Your task to perform on an android device: Add "jbl charge 4" to the cart on target.com Image 0: 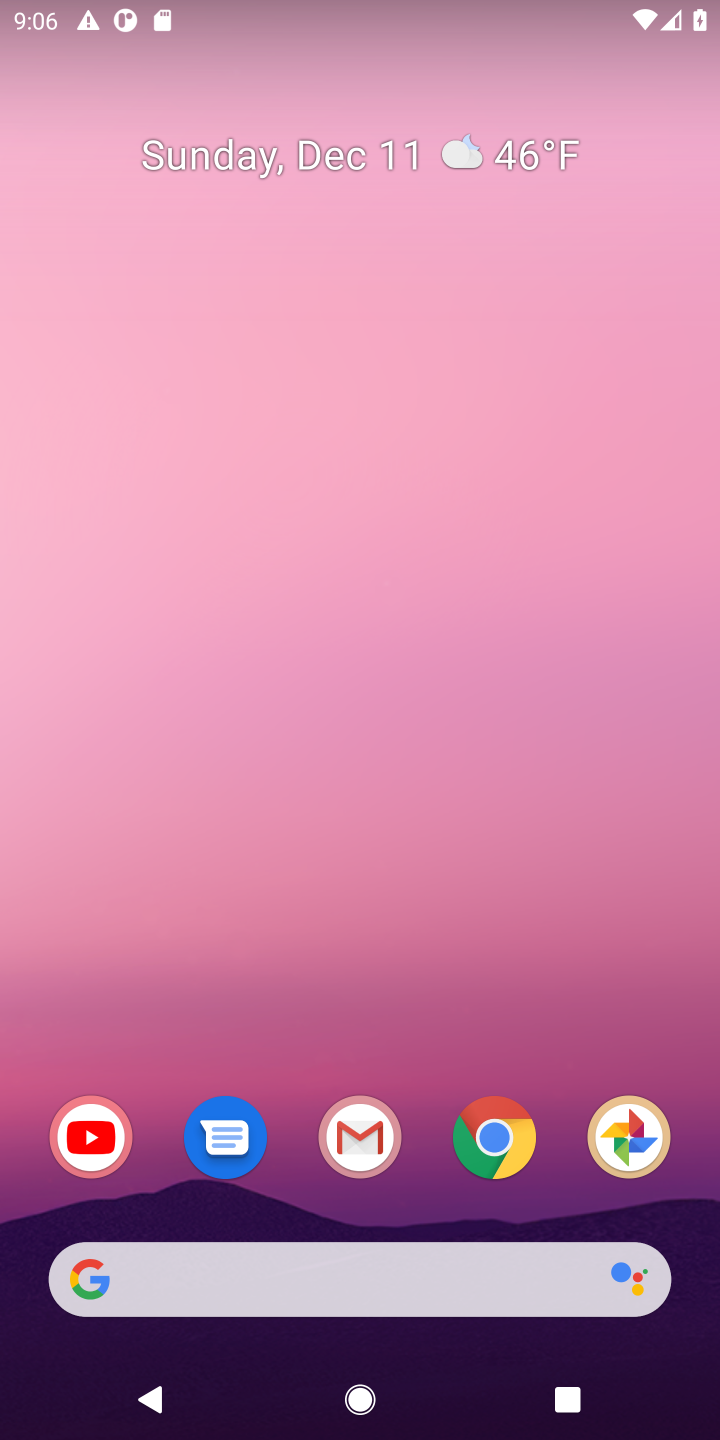
Step 0: click (486, 1136)
Your task to perform on an android device: Add "jbl charge 4" to the cart on target.com Image 1: 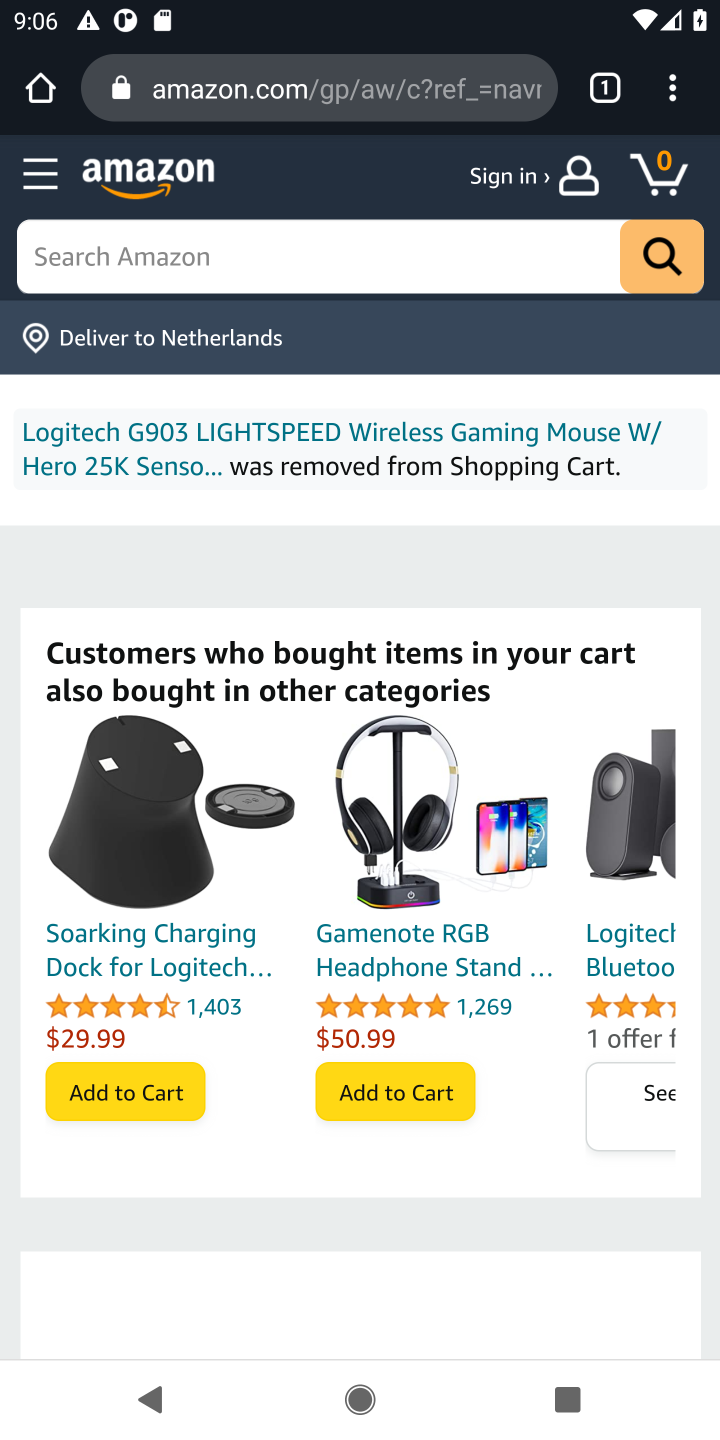
Step 1: click (293, 88)
Your task to perform on an android device: Add "jbl charge 4" to the cart on target.com Image 2: 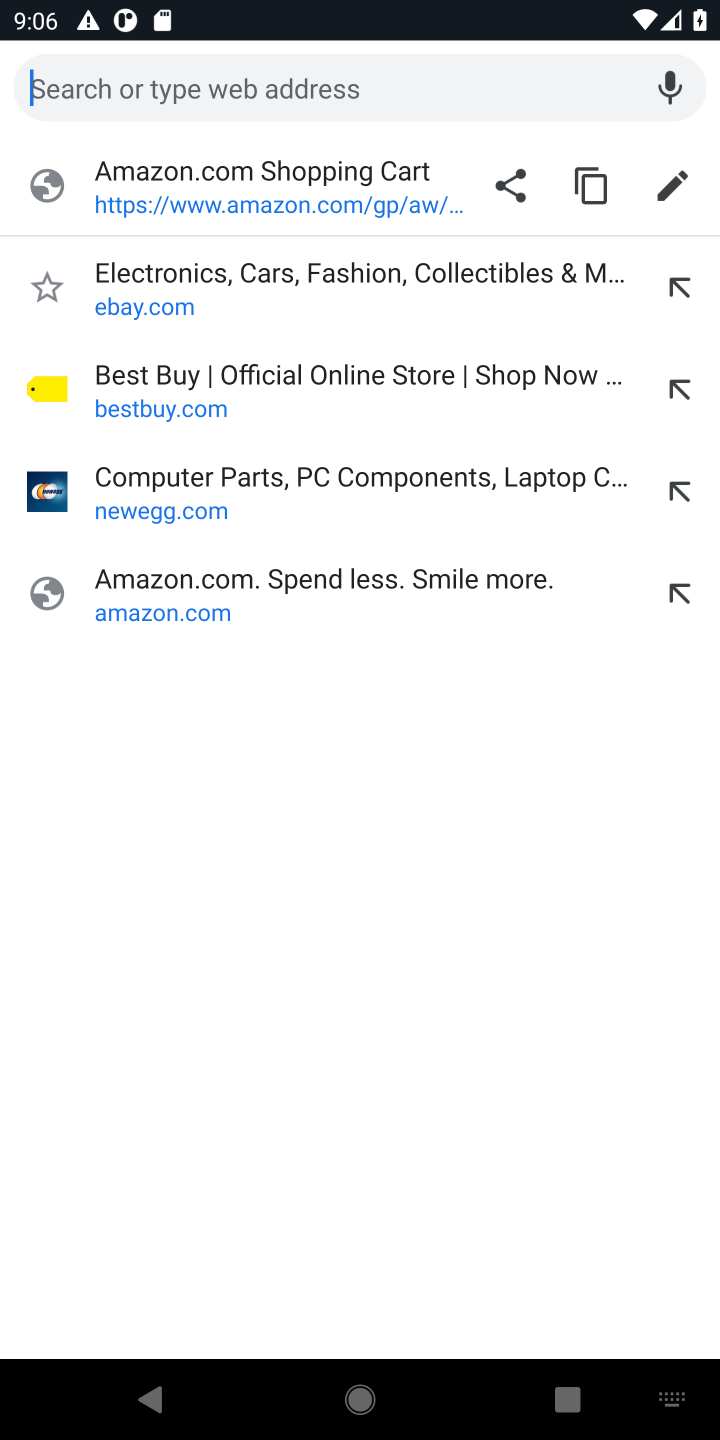
Step 2: type "target"
Your task to perform on an android device: Add "jbl charge 4" to the cart on target.com Image 3: 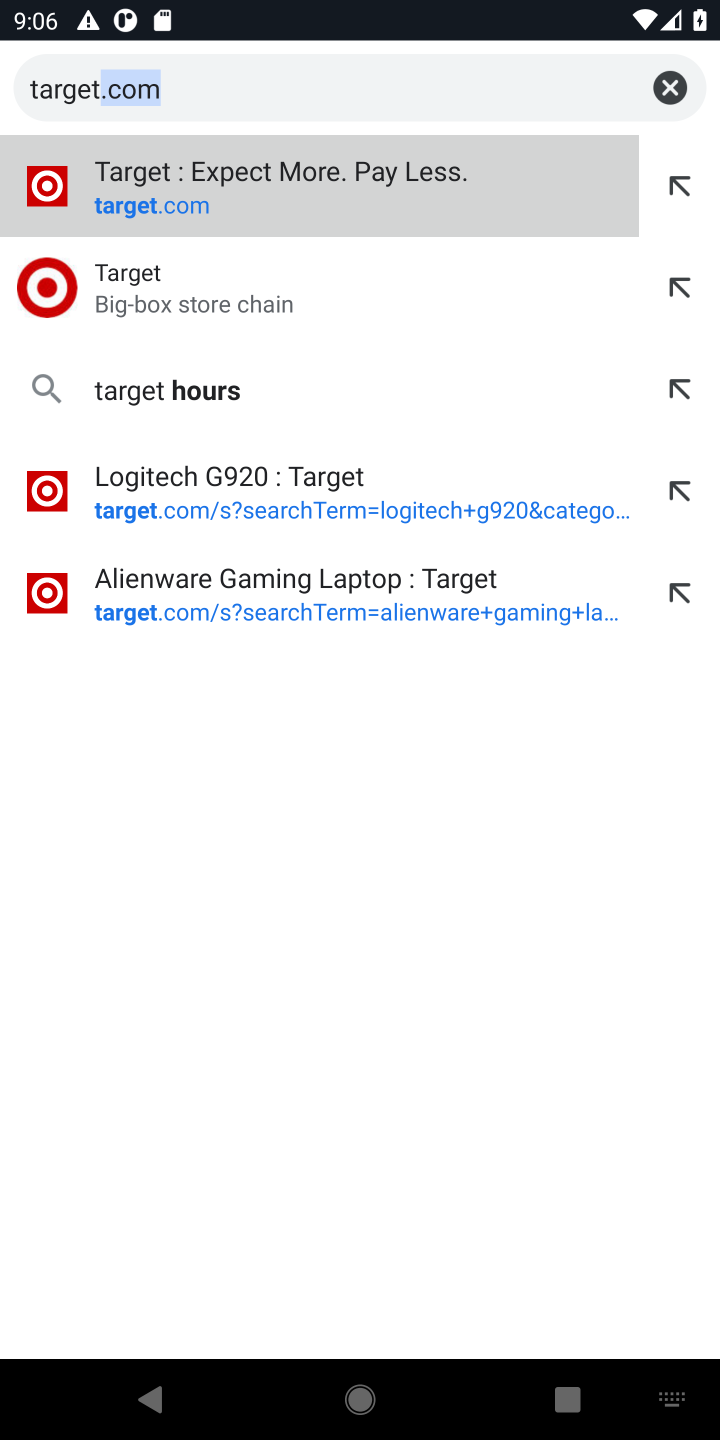
Step 3: click (327, 220)
Your task to perform on an android device: Add "jbl charge 4" to the cart on target.com Image 4: 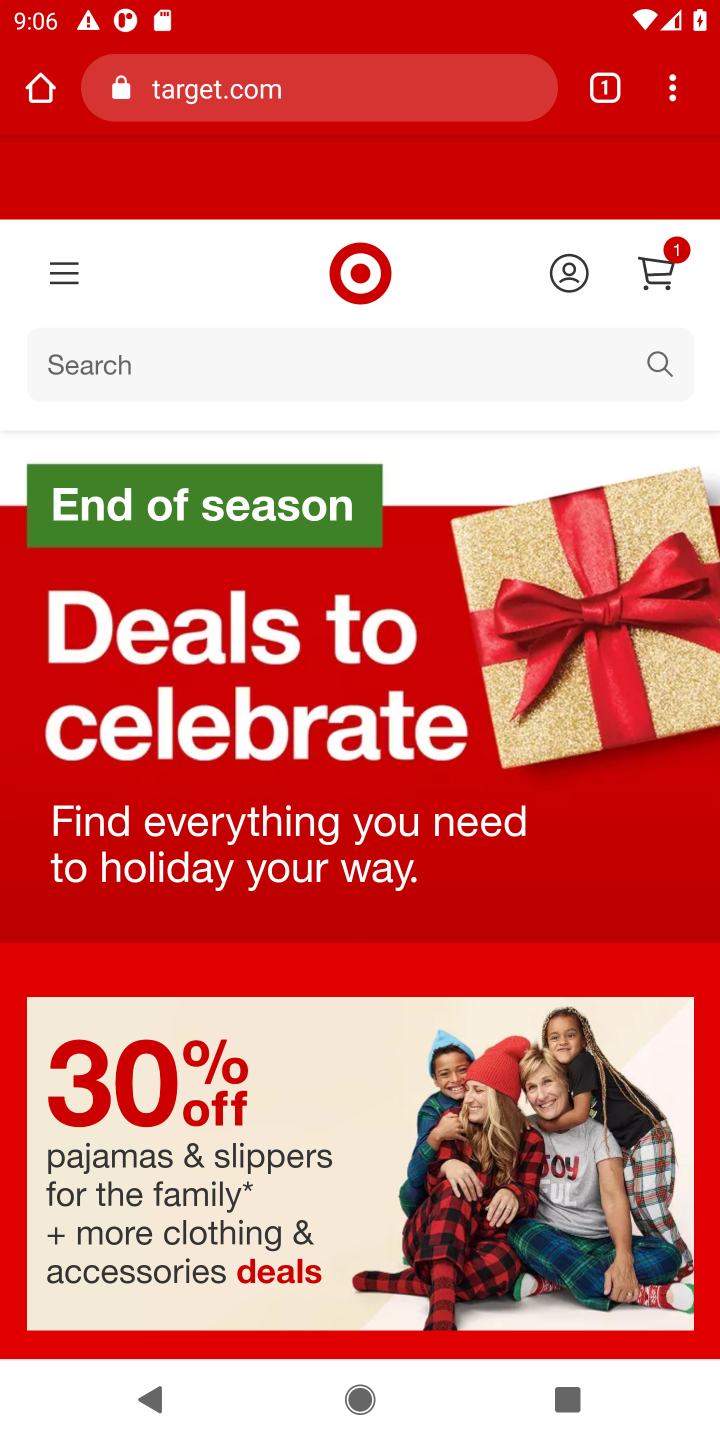
Step 4: click (384, 361)
Your task to perform on an android device: Add "jbl charge 4" to the cart on target.com Image 5: 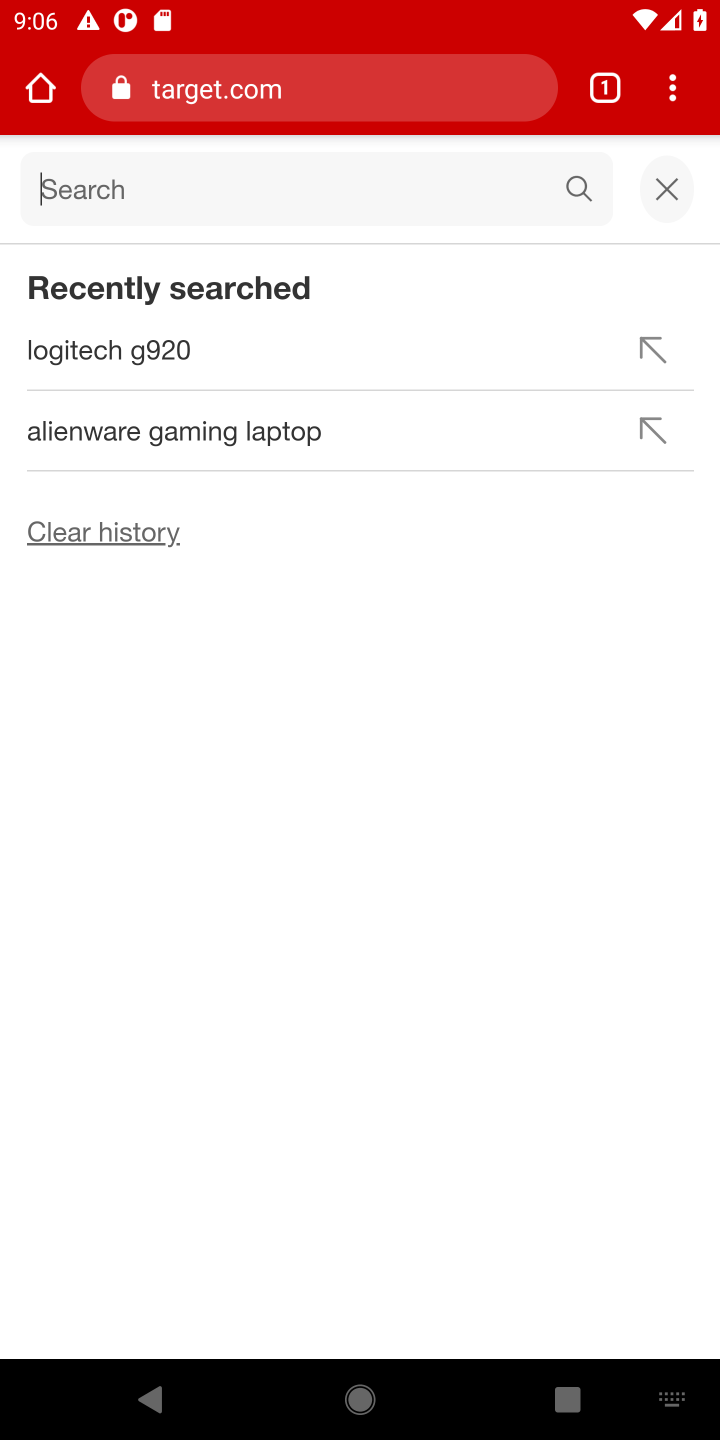
Step 5: type "jbl charge 4"
Your task to perform on an android device: Add "jbl charge 4" to the cart on target.com Image 6: 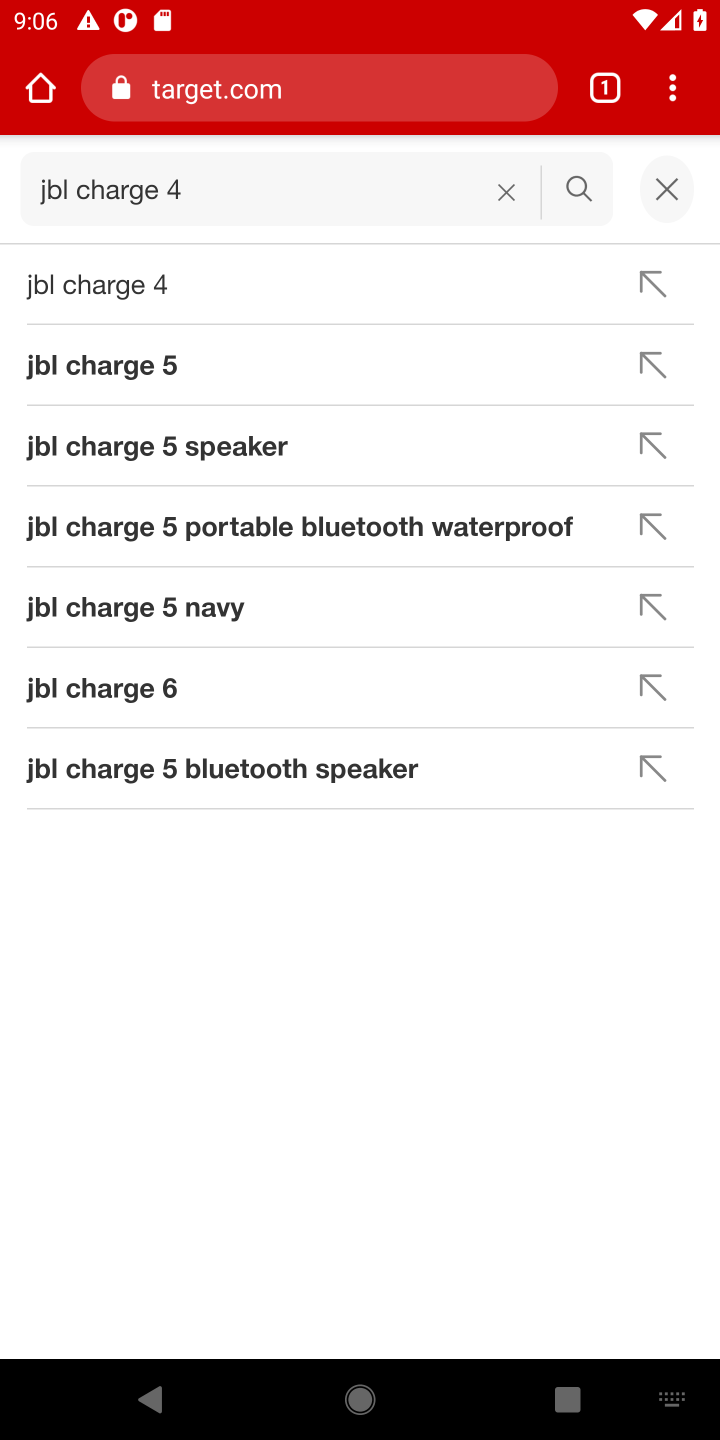
Step 6: click (114, 283)
Your task to perform on an android device: Add "jbl charge 4" to the cart on target.com Image 7: 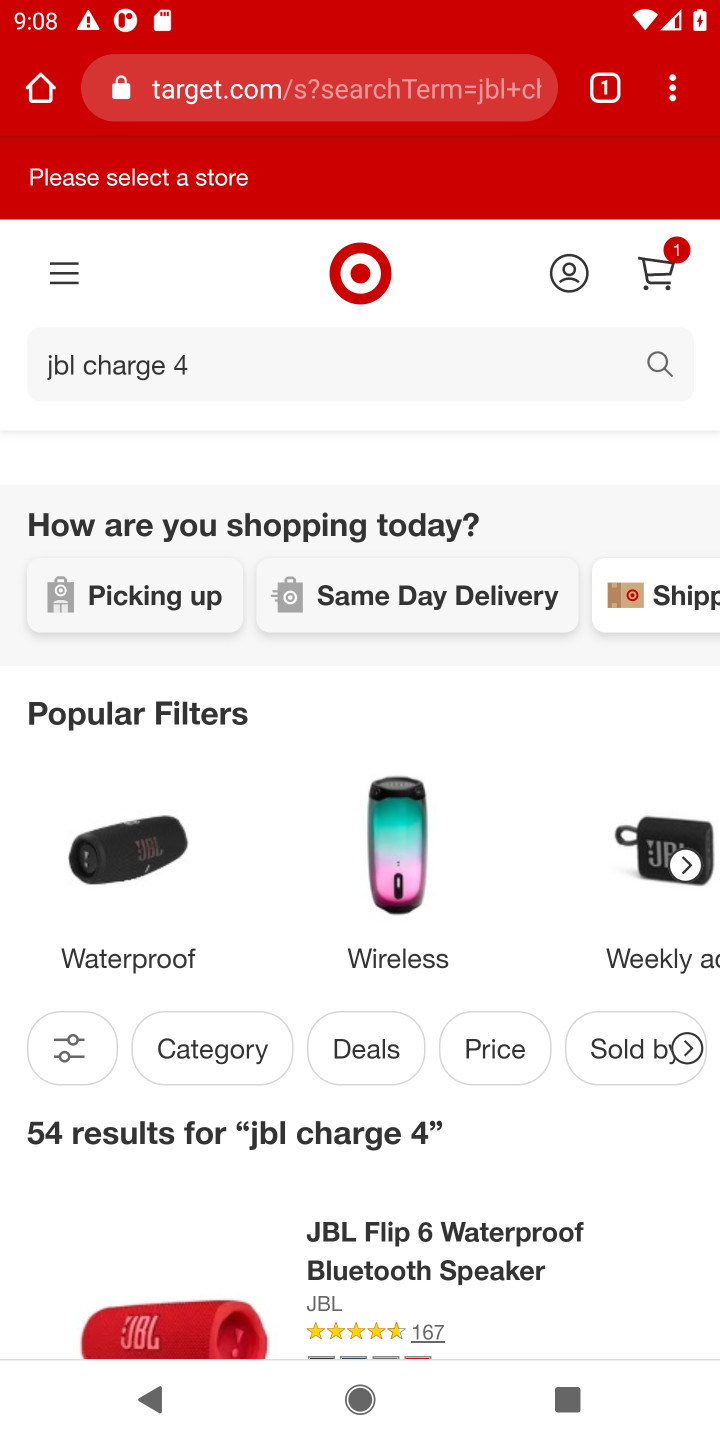
Step 7: click (655, 361)
Your task to perform on an android device: Add "jbl charge 4" to the cart on target.com Image 8: 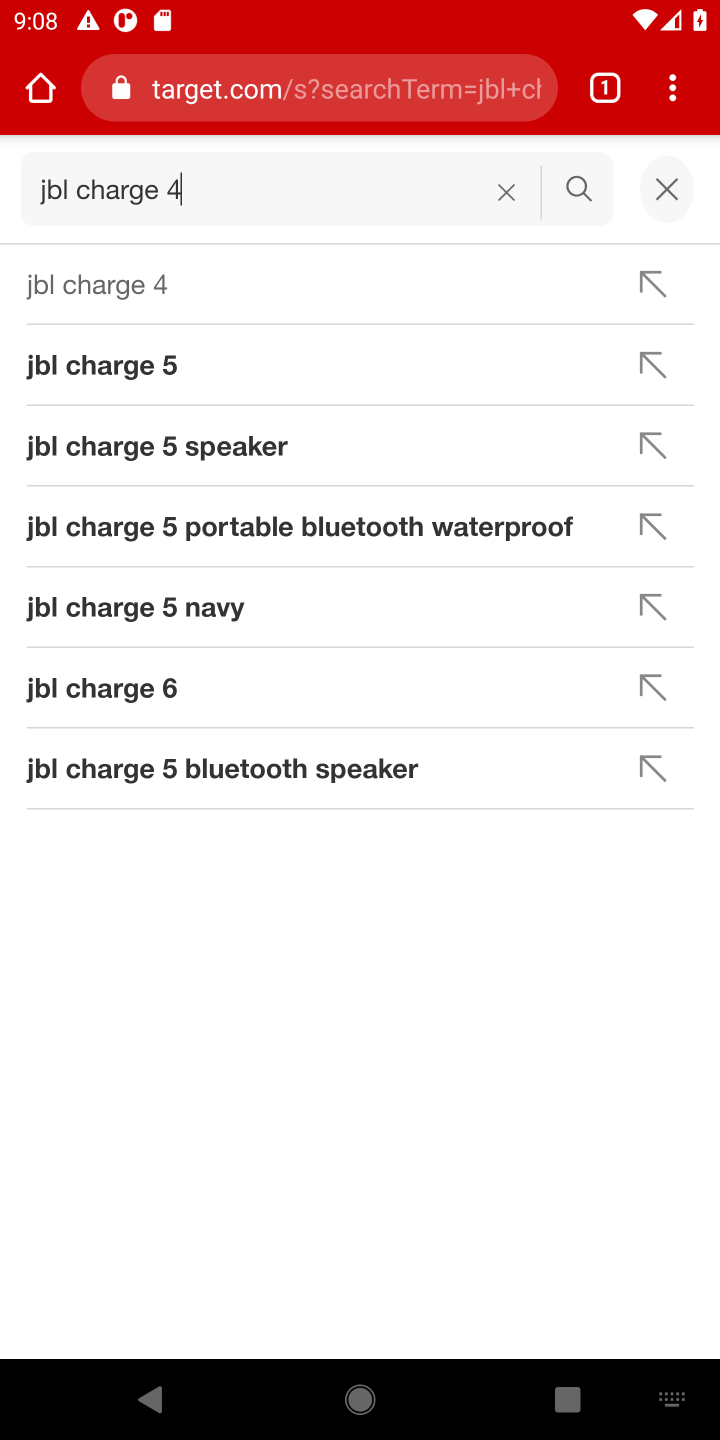
Step 8: click (116, 290)
Your task to perform on an android device: Add "jbl charge 4" to the cart on target.com Image 9: 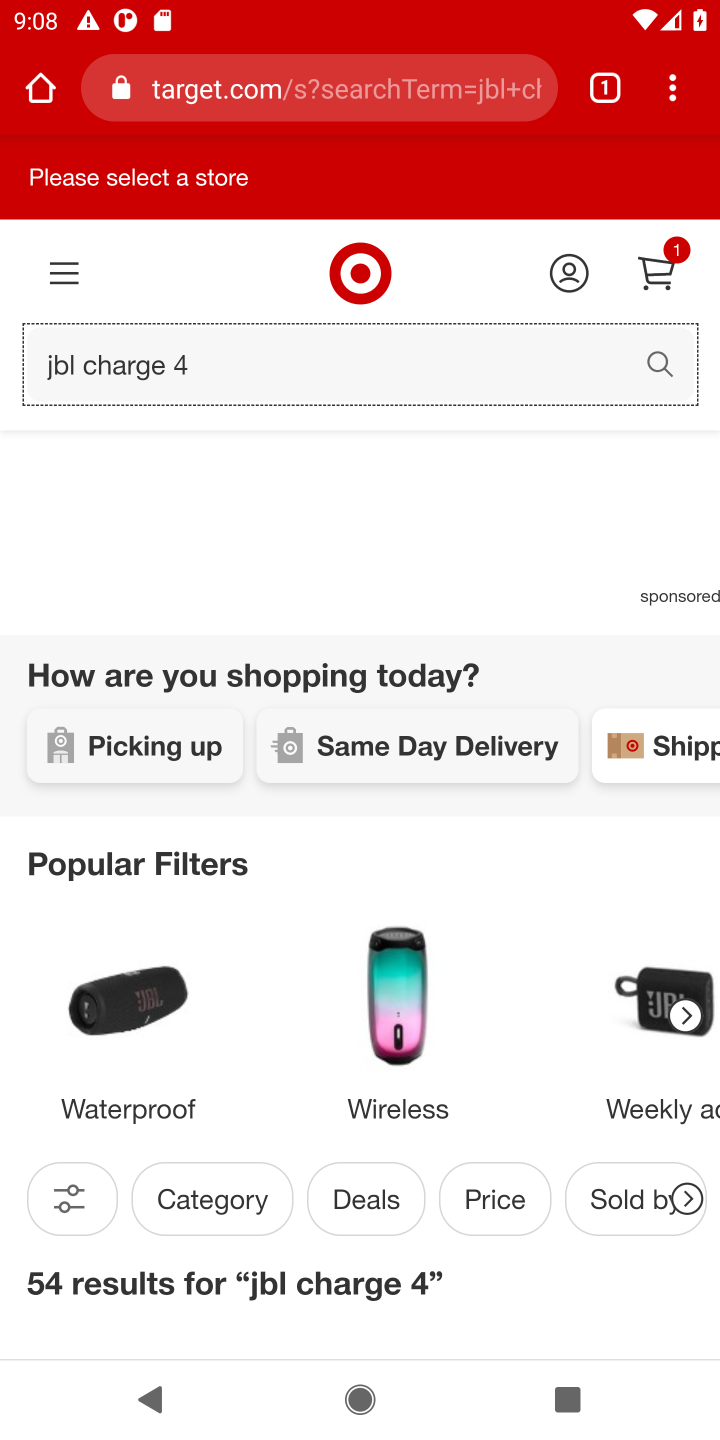
Step 9: click (654, 360)
Your task to perform on an android device: Add "jbl charge 4" to the cart on target.com Image 10: 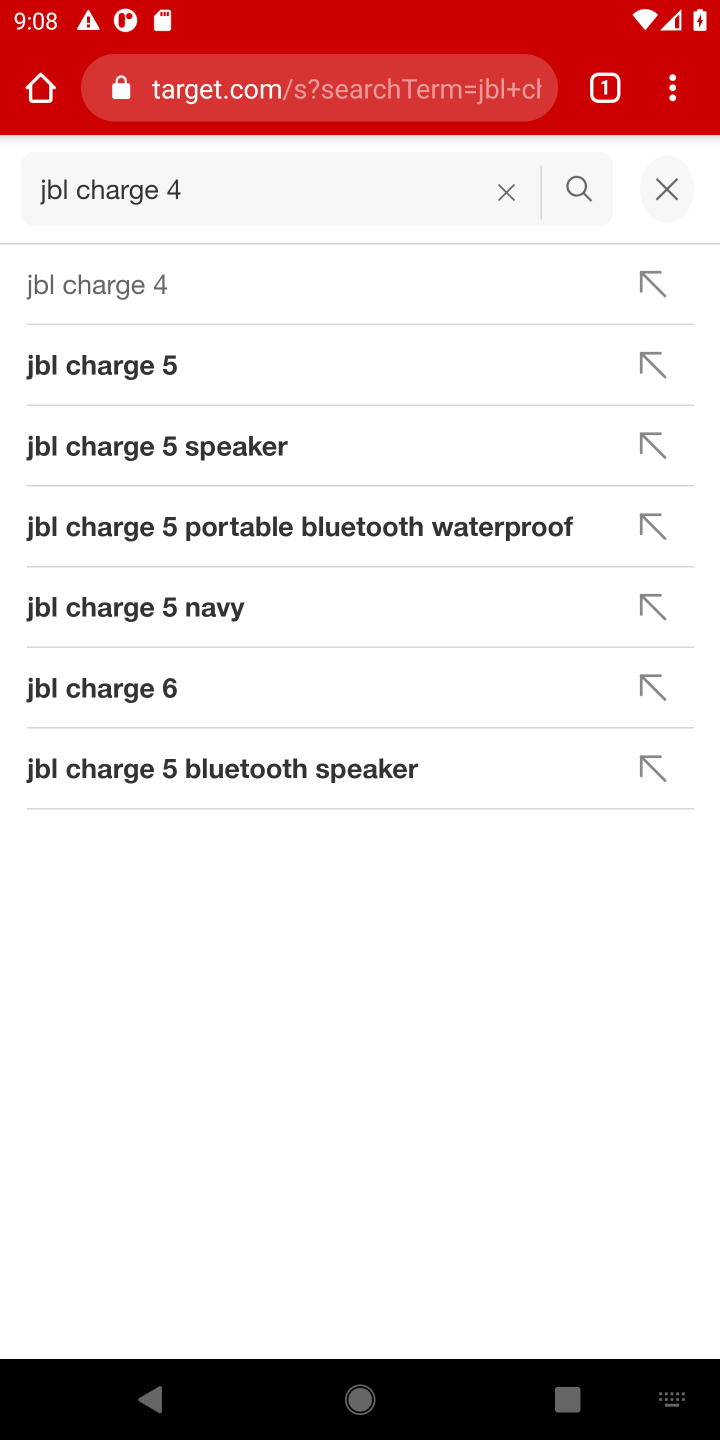
Step 10: click (142, 294)
Your task to perform on an android device: Add "jbl charge 4" to the cart on target.com Image 11: 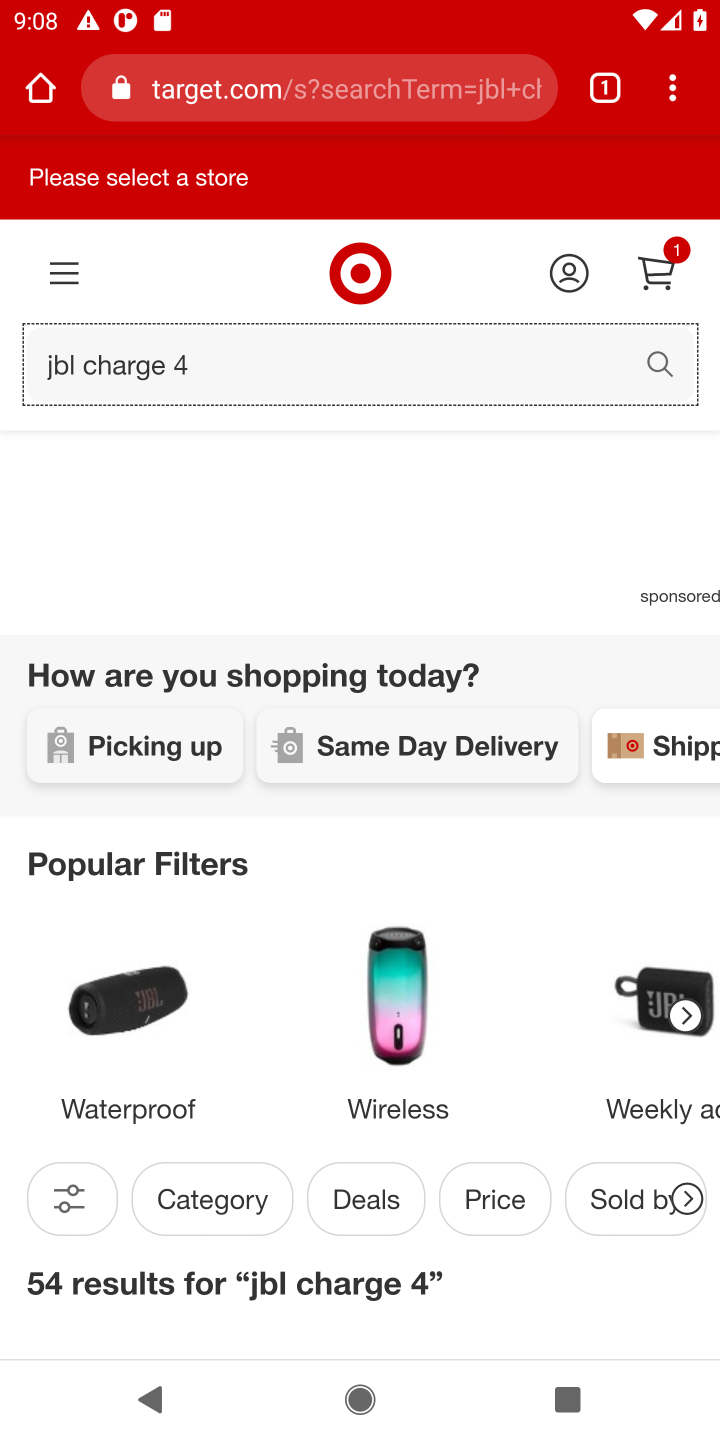
Step 11: drag from (502, 1288) to (475, 236)
Your task to perform on an android device: Add "jbl charge 4" to the cart on target.com Image 12: 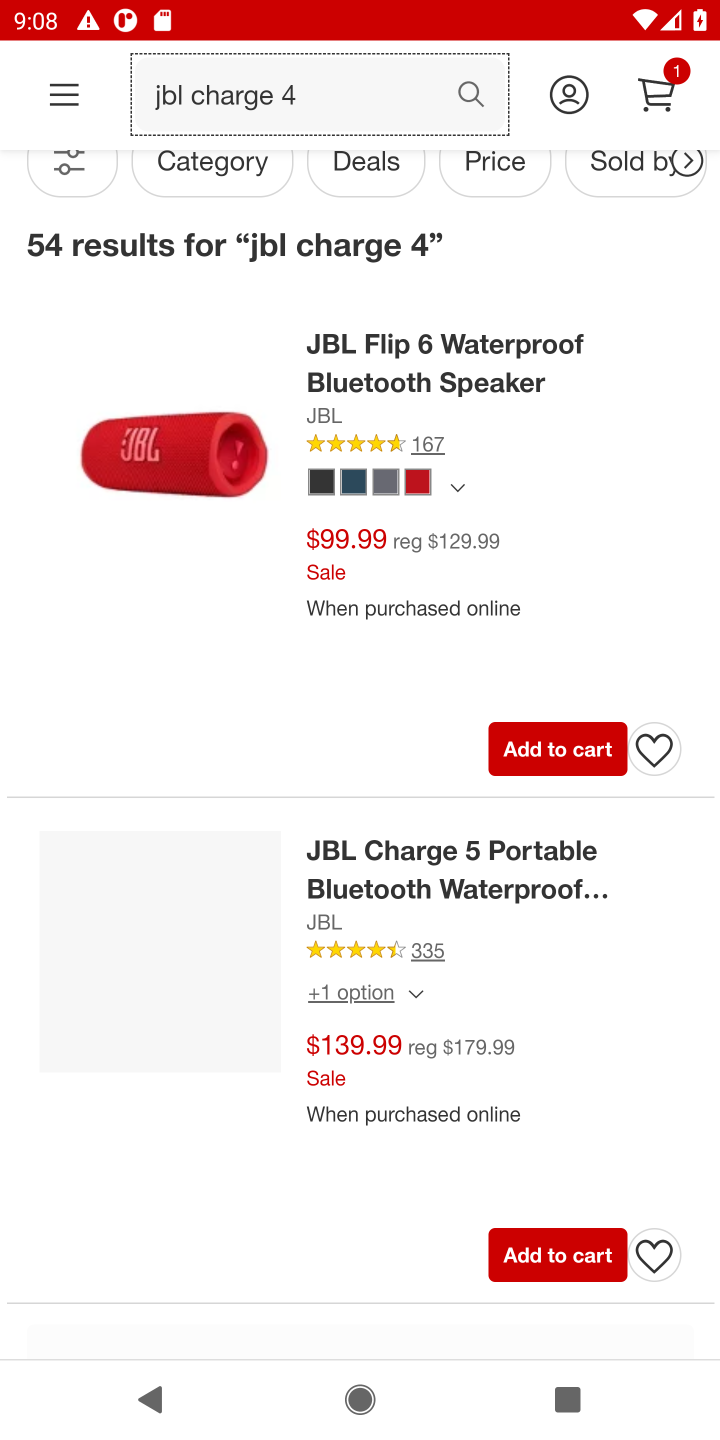
Step 12: click (547, 746)
Your task to perform on an android device: Add "jbl charge 4" to the cart on target.com Image 13: 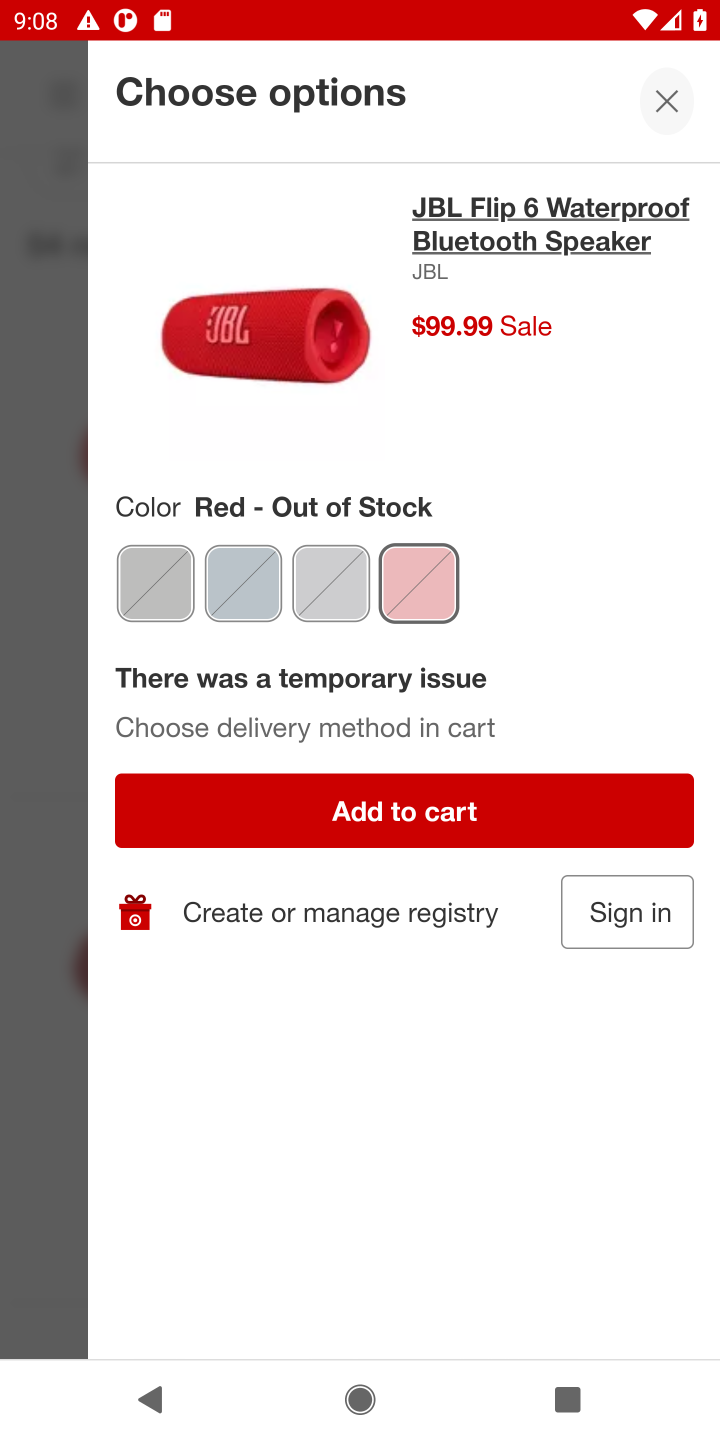
Step 13: task complete